Your task to perform on an android device: Open location settings Image 0: 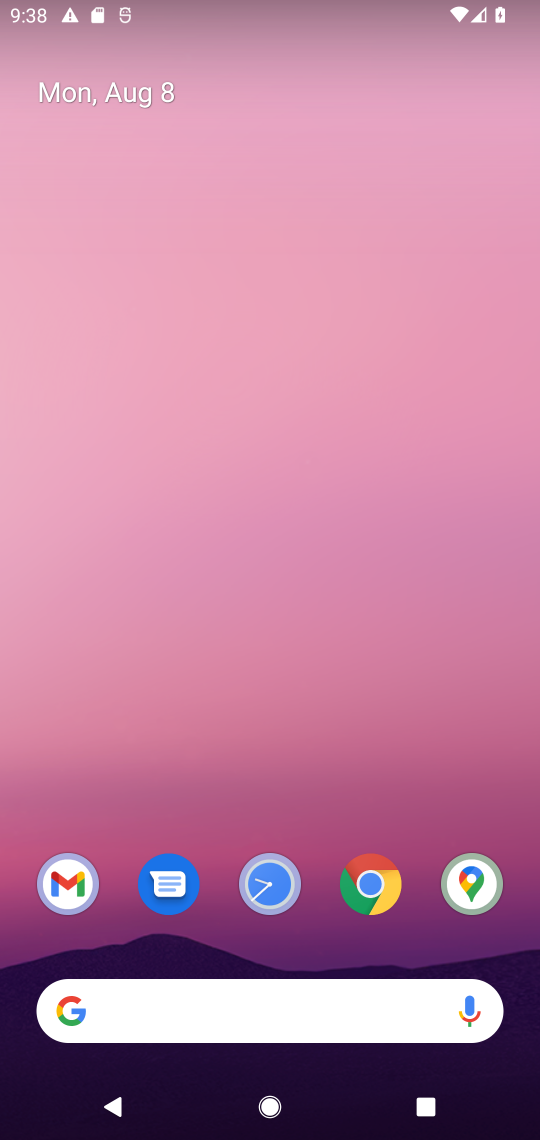
Step 0: drag from (315, 785) to (315, 65)
Your task to perform on an android device: Open location settings Image 1: 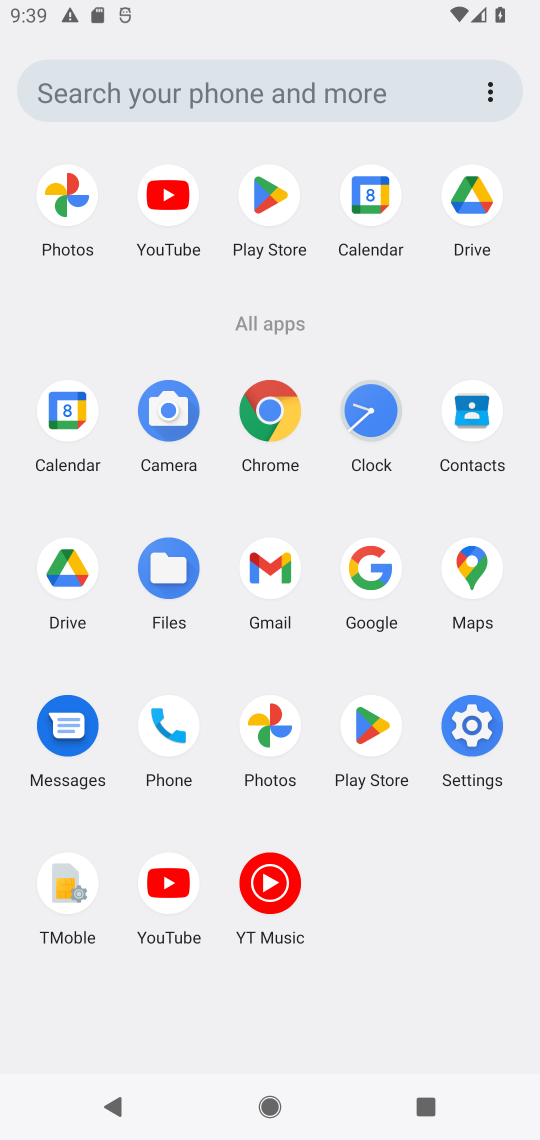
Step 1: click (473, 735)
Your task to perform on an android device: Open location settings Image 2: 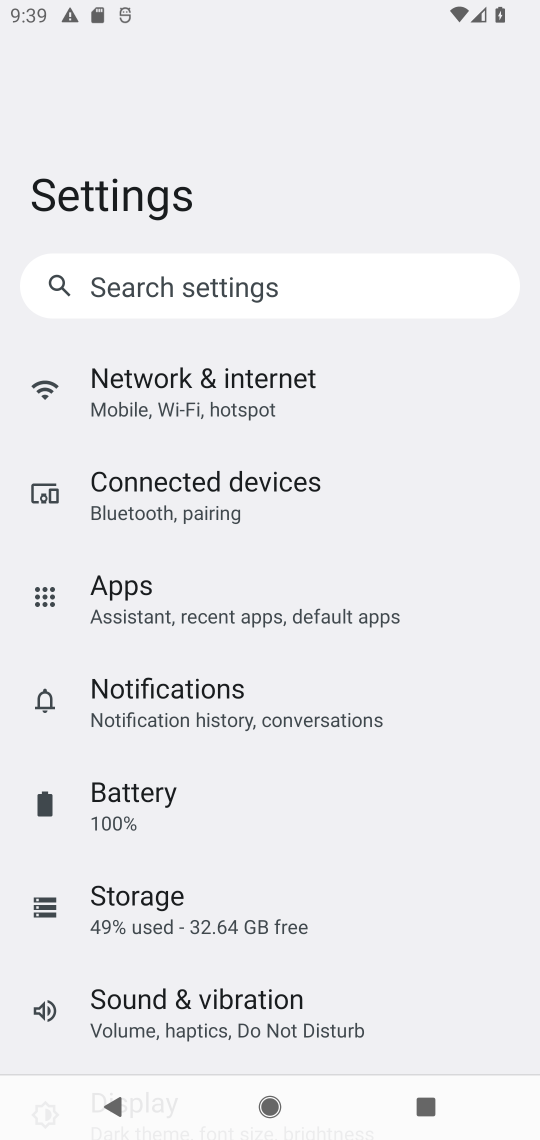
Step 2: drag from (430, 988) to (428, 306)
Your task to perform on an android device: Open location settings Image 3: 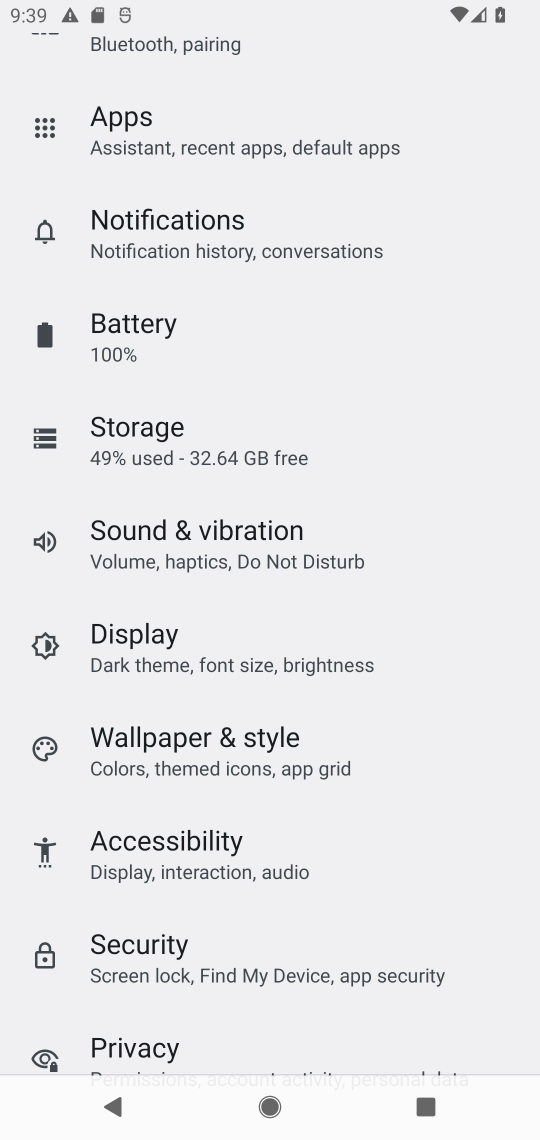
Step 3: drag from (360, 920) to (297, 360)
Your task to perform on an android device: Open location settings Image 4: 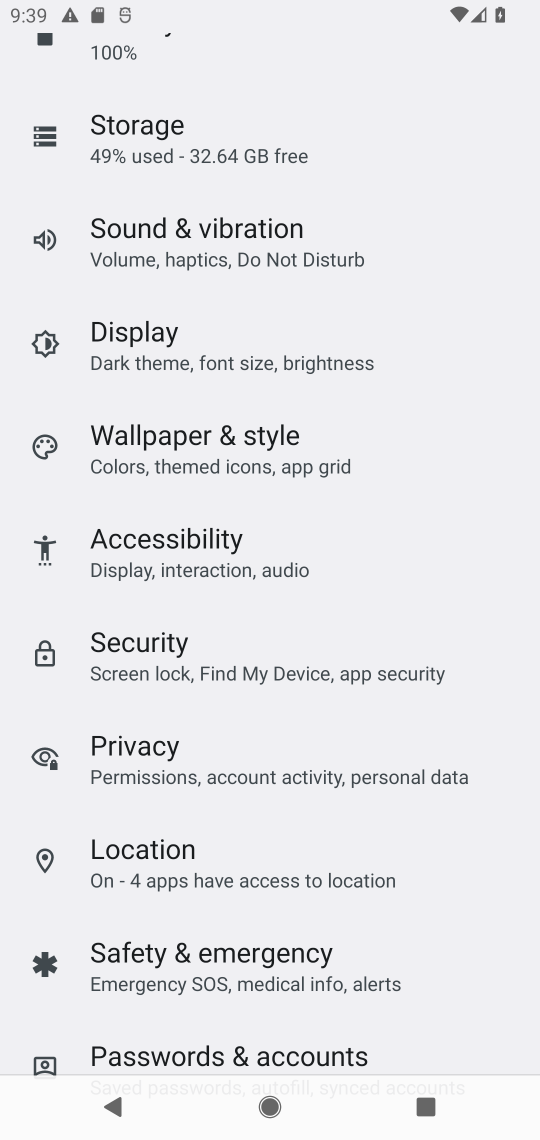
Step 4: click (142, 847)
Your task to perform on an android device: Open location settings Image 5: 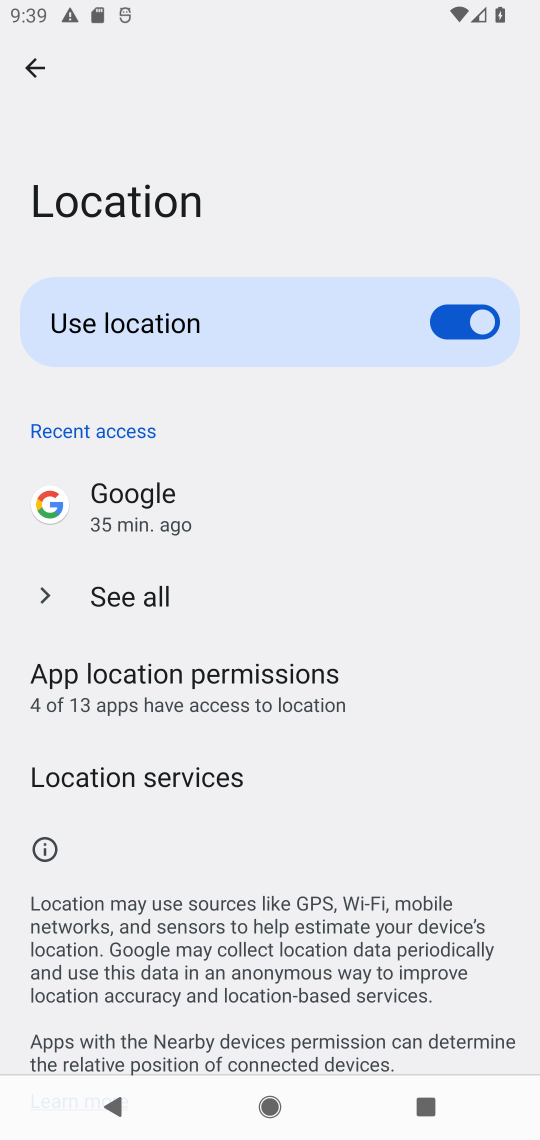
Step 5: task complete